Your task to perform on an android device: turn off priority inbox in the gmail app Image 0: 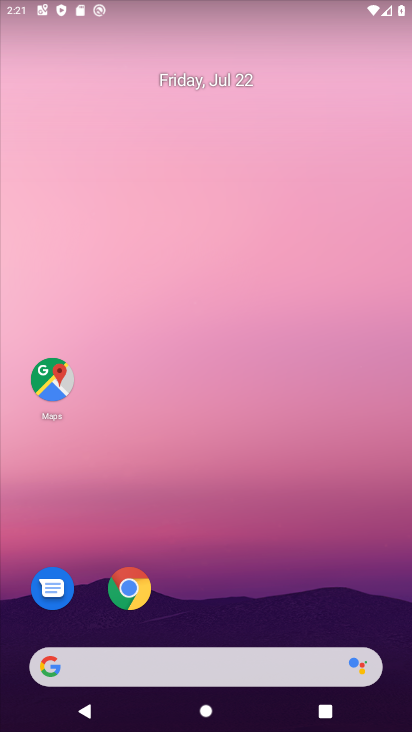
Step 0: drag from (213, 622) to (232, 0)
Your task to perform on an android device: turn off priority inbox in the gmail app Image 1: 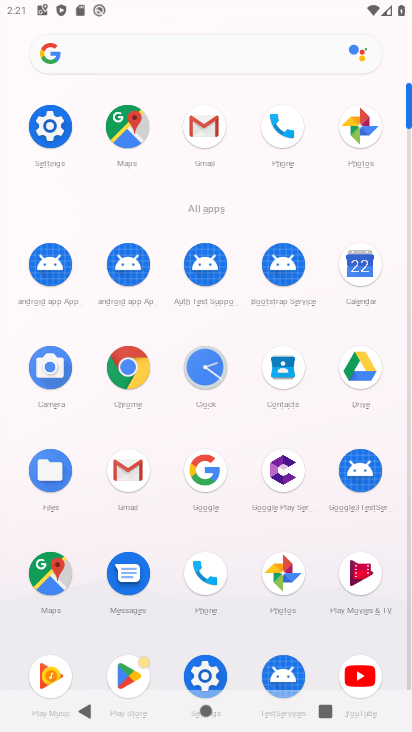
Step 1: click (124, 464)
Your task to perform on an android device: turn off priority inbox in the gmail app Image 2: 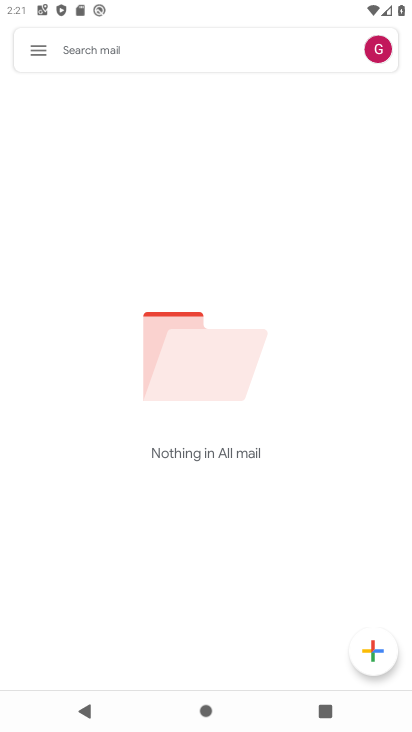
Step 2: click (27, 52)
Your task to perform on an android device: turn off priority inbox in the gmail app Image 3: 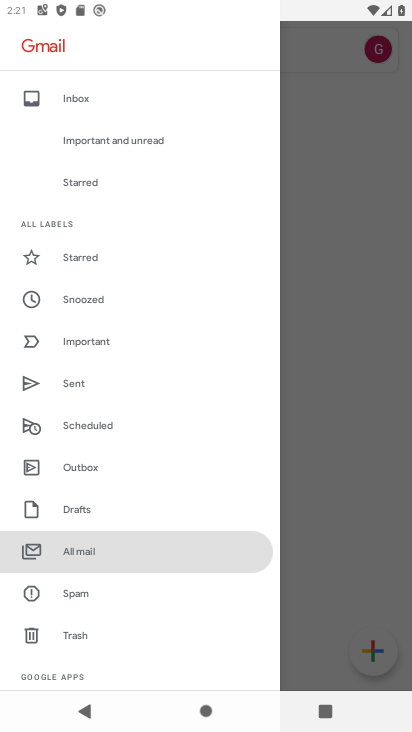
Step 3: drag from (114, 635) to (135, 93)
Your task to perform on an android device: turn off priority inbox in the gmail app Image 4: 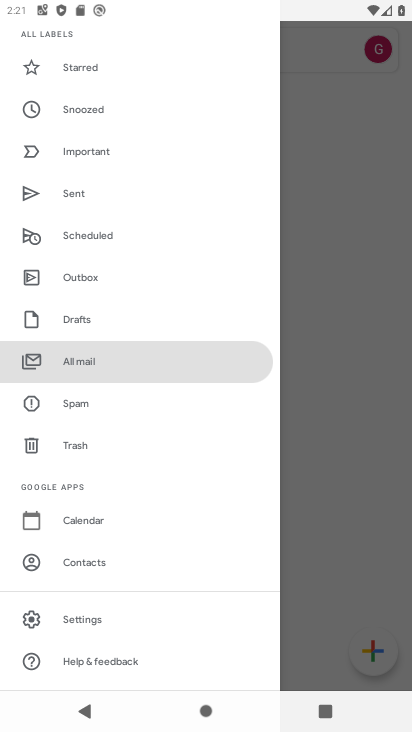
Step 4: click (110, 625)
Your task to perform on an android device: turn off priority inbox in the gmail app Image 5: 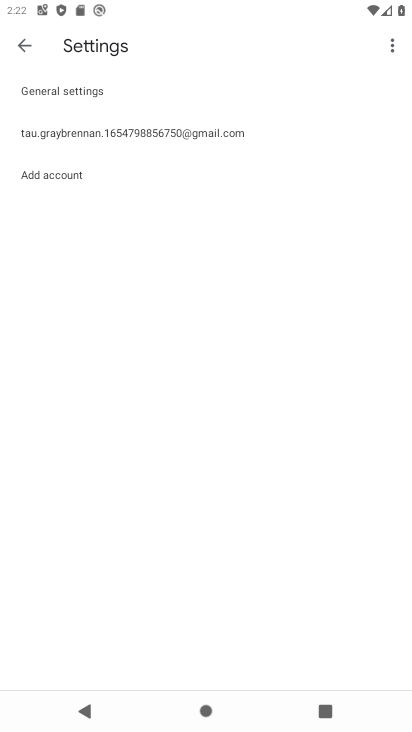
Step 5: click (94, 129)
Your task to perform on an android device: turn off priority inbox in the gmail app Image 6: 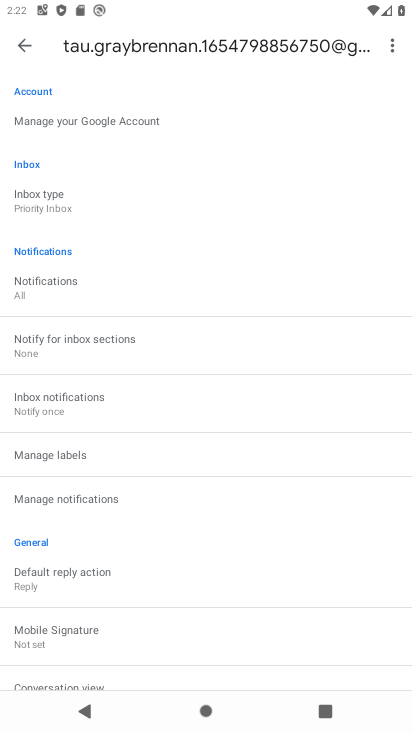
Step 6: click (84, 194)
Your task to perform on an android device: turn off priority inbox in the gmail app Image 7: 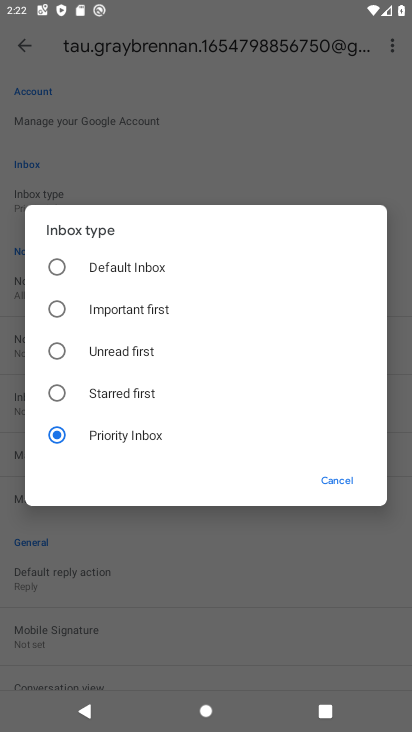
Step 7: click (51, 388)
Your task to perform on an android device: turn off priority inbox in the gmail app Image 8: 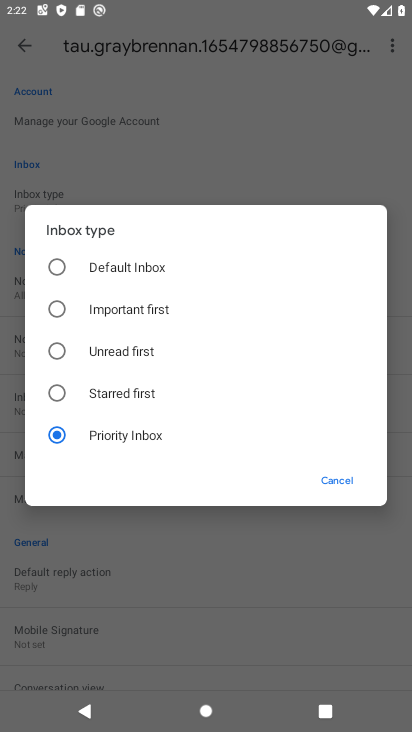
Step 8: task complete